Your task to perform on an android device: How do I get to the nearest Target? Image 0: 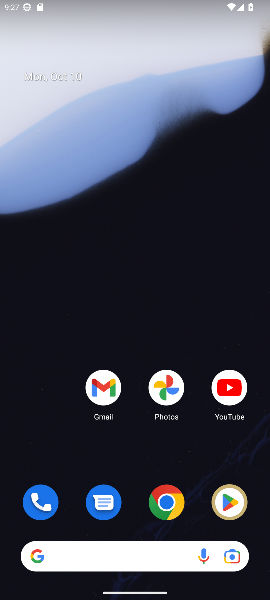
Step 0: click (172, 503)
Your task to perform on an android device: How do I get to the nearest Target? Image 1: 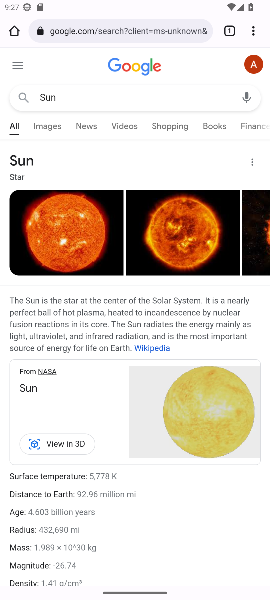
Step 1: click (83, 24)
Your task to perform on an android device: How do I get to the nearest Target? Image 2: 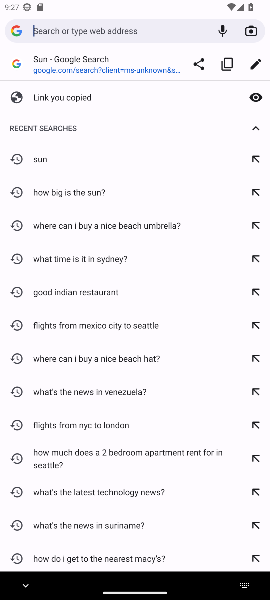
Step 2: type "How do I get to the nearest Target?"
Your task to perform on an android device: How do I get to the nearest Target? Image 3: 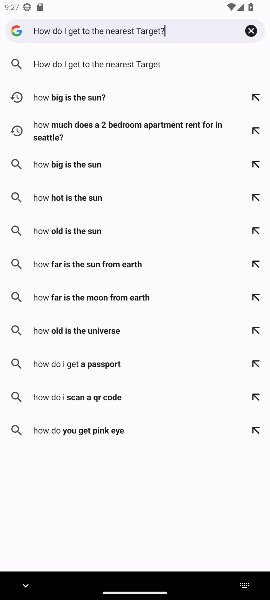
Step 3: type ""
Your task to perform on an android device: How do I get to the nearest Target? Image 4: 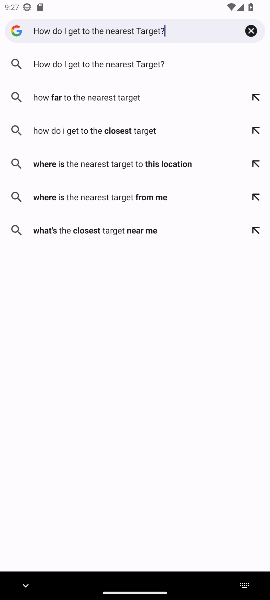
Step 4: click (189, 57)
Your task to perform on an android device: How do I get to the nearest Target? Image 5: 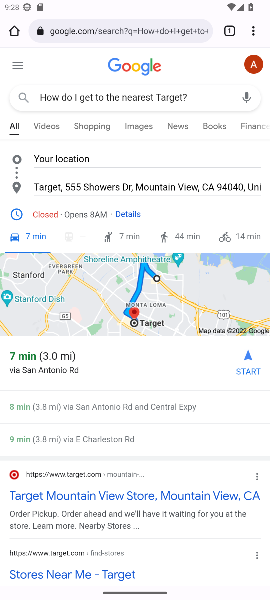
Step 5: drag from (101, 432) to (108, 144)
Your task to perform on an android device: How do I get to the nearest Target? Image 6: 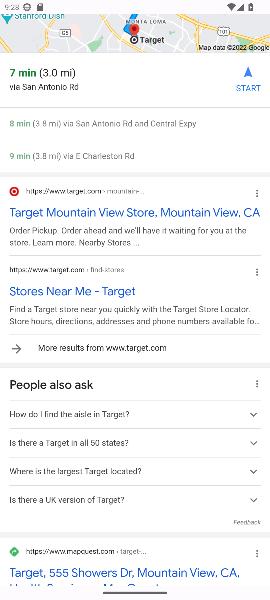
Step 6: click (70, 217)
Your task to perform on an android device: How do I get to the nearest Target? Image 7: 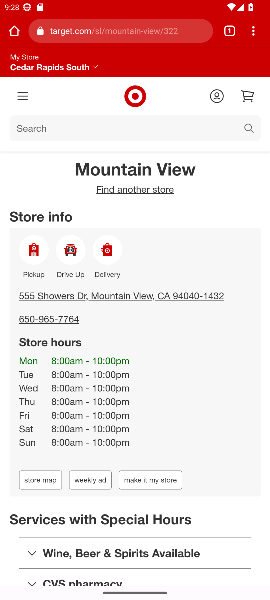
Step 7: drag from (59, 302) to (89, 99)
Your task to perform on an android device: How do I get to the nearest Target? Image 8: 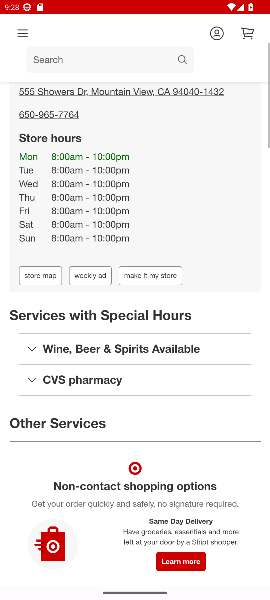
Step 8: drag from (37, 297) to (65, 144)
Your task to perform on an android device: How do I get to the nearest Target? Image 9: 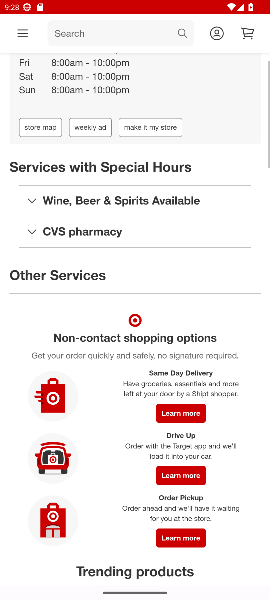
Step 9: drag from (64, 339) to (62, 171)
Your task to perform on an android device: How do I get to the nearest Target? Image 10: 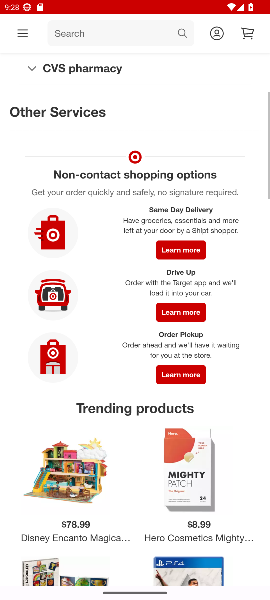
Step 10: drag from (51, 327) to (70, 180)
Your task to perform on an android device: How do I get to the nearest Target? Image 11: 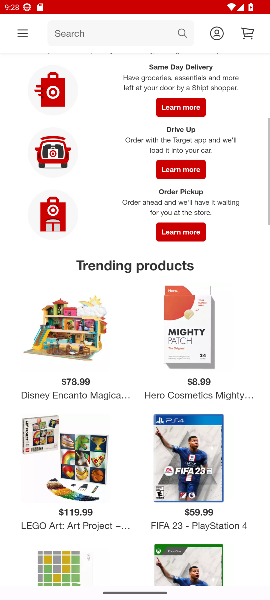
Step 11: drag from (60, 318) to (71, 203)
Your task to perform on an android device: How do I get to the nearest Target? Image 12: 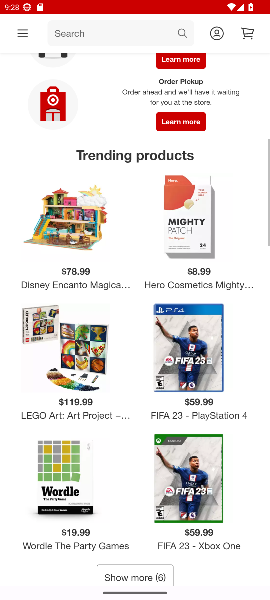
Step 12: drag from (85, 343) to (97, 195)
Your task to perform on an android device: How do I get to the nearest Target? Image 13: 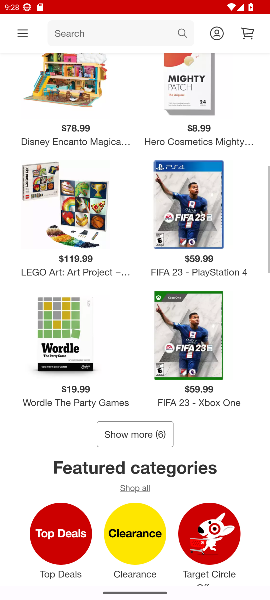
Step 13: drag from (76, 326) to (88, 193)
Your task to perform on an android device: How do I get to the nearest Target? Image 14: 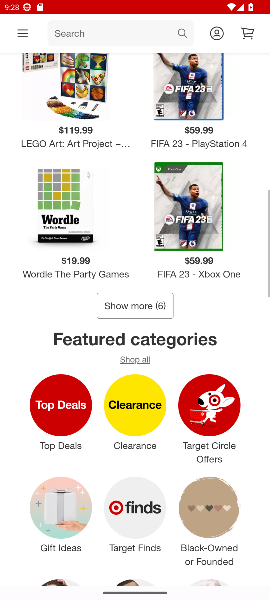
Step 14: drag from (81, 311) to (95, 206)
Your task to perform on an android device: How do I get to the nearest Target? Image 15: 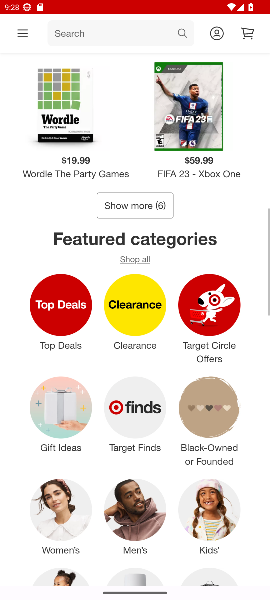
Step 15: drag from (81, 304) to (93, 213)
Your task to perform on an android device: How do I get to the nearest Target? Image 16: 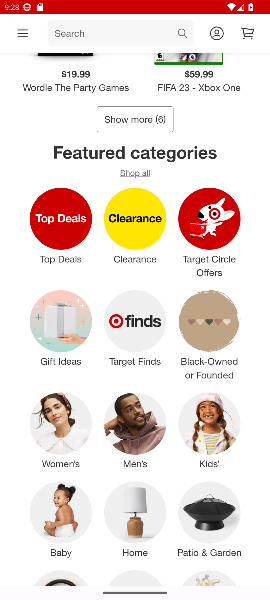
Step 16: drag from (42, 369) to (48, 0)
Your task to perform on an android device: How do I get to the nearest Target? Image 17: 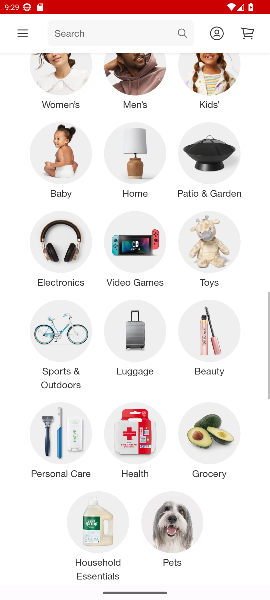
Step 17: drag from (77, 249) to (119, 29)
Your task to perform on an android device: How do I get to the nearest Target? Image 18: 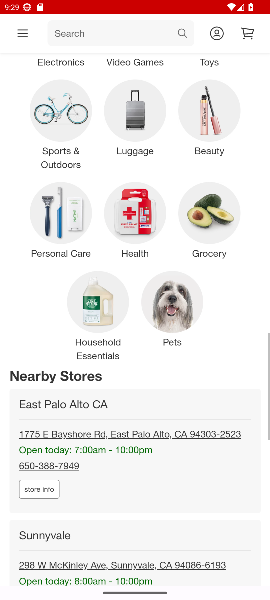
Step 18: drag from (104, 316) to (114, 122)
Your task to perform on an android device: How do I get to the nearest Target? Image 19: 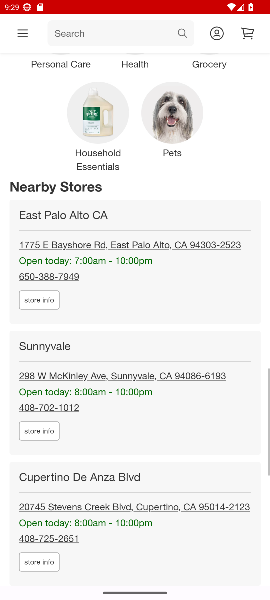
Step 19: drag from (106, 340) to (118, 128)
Your task to perform on an android device: How do I get to the nearest Target? Image 20: 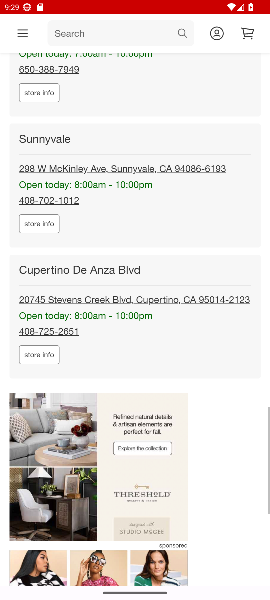
Step 20: drag from (120, 387) to (123, 188)
Your task to perform on an android device: How do I get to the nearest Target? Image 21: 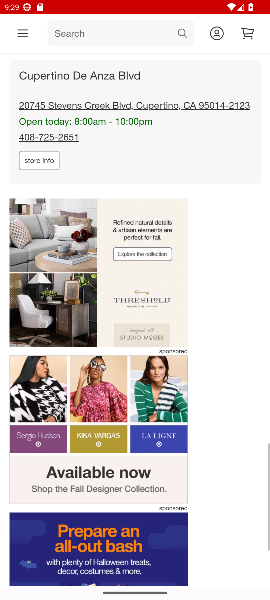
Step 21: drag from (158, 389) to (170, 150)
Your task to perform on an android device: How do I get to the nearest Target? Image 22: 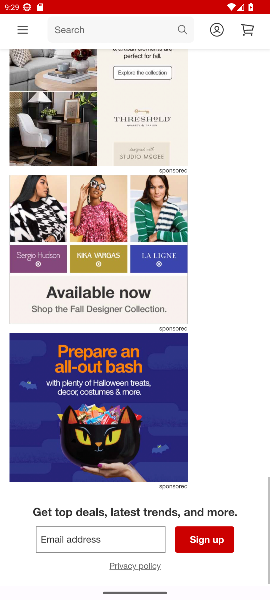
Step 22: drag from (190, 366) to (192, 148)
Your task to perform on an android device: How do I get to the nearest Target? Image 23: 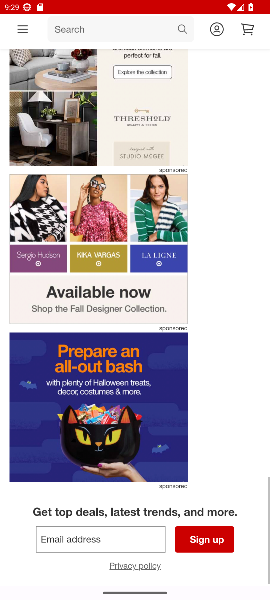
Step 23: drag from (211, 375) to (227, 196)
Your task to perform on an android device: How do I get to the nearest Target? Image 24: 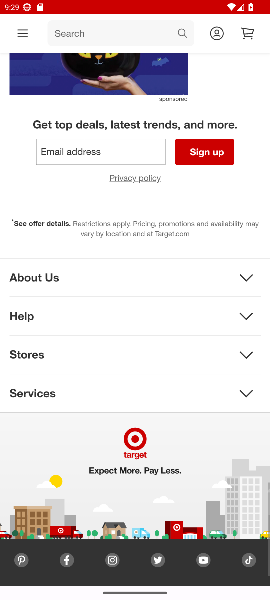
Step 24: drag from (247, 429) to (237, 244)
Your task to perform on an android device: How do I get to the nearest Target? Image 25: 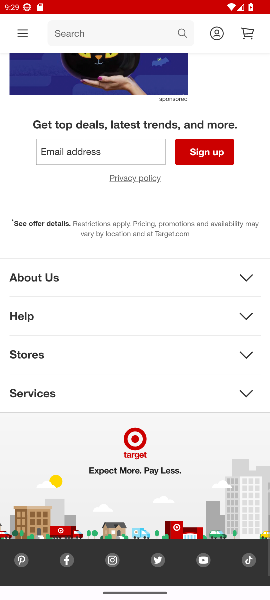
Step 25: drag from (239, 511) to (243, 335)
Your task to perform on an android device: How do I get to the nearest Target? Image 26: 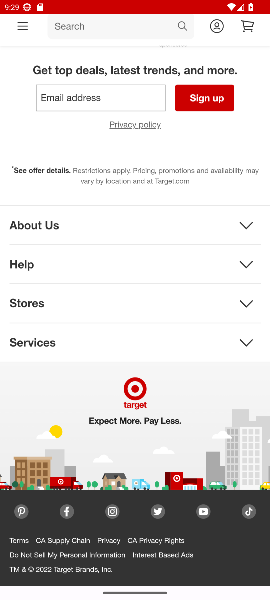
Step 26: press back button
Your task to perform on an android device: How do I get to the nearest Target? Image 27: 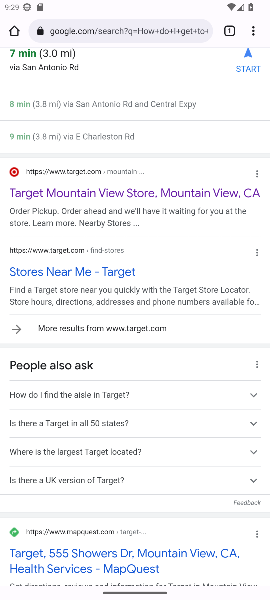
Step 27: drag from (136, 521) to (128, 589)
Your task to perform on an android device: How do I get to the nearest Target? Image 28: 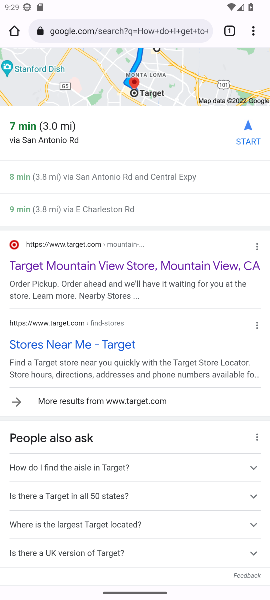
Step 28: drag from (137, 129) to (143, 462)
Your task to perform on an android device: How do I get to the nearest Target? Image 29: 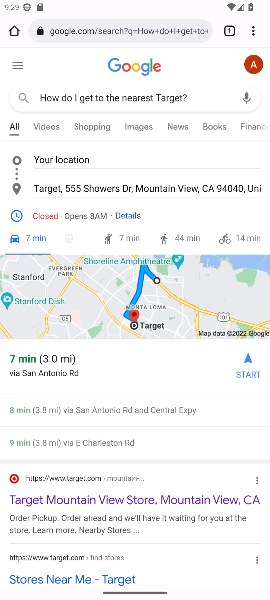
Step 29: click (90, 261)
Your task to perform on an android device: How do I get to the nearest Target? Image 30: 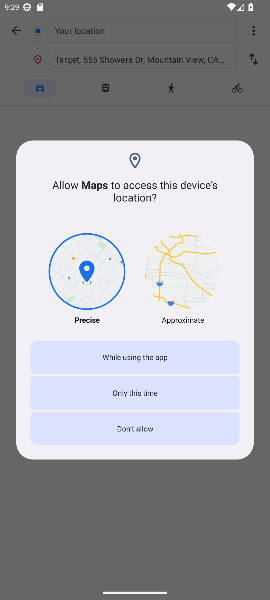
Step 30: click (152, 425)
Your task to perform on an android device: How do I get to the nearest Target? Image 31: 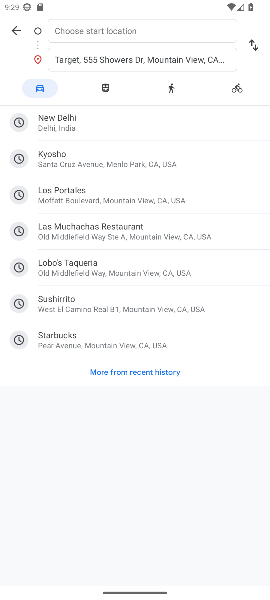
Step 31: press back button
Your task to perform on an android device: How do I get to the nearest Target? Image 32: 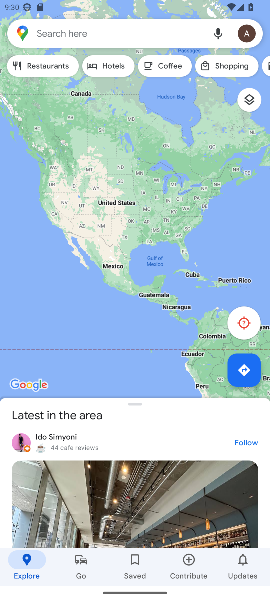
Step 32: press back button
Your task to perform on an android device: How do I get to the nearest Target? Image 33: 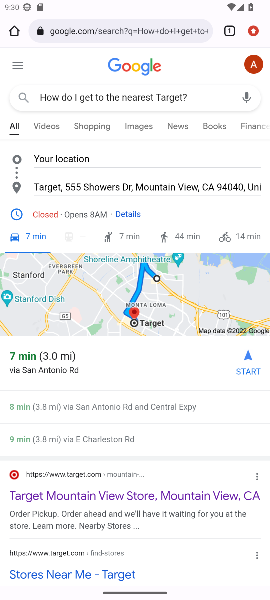
Step 33: drag from (157, 508) to (152, 122)
Your task to perform on an android device: How do I get to the nearest Target? Image 34: 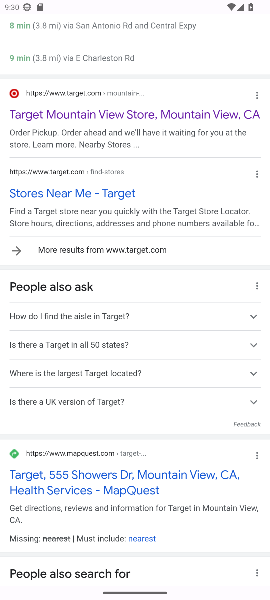
Step 34: click (66, 201)
Your task to perform on an android device: How do I get to the nearest Target? Image 35: 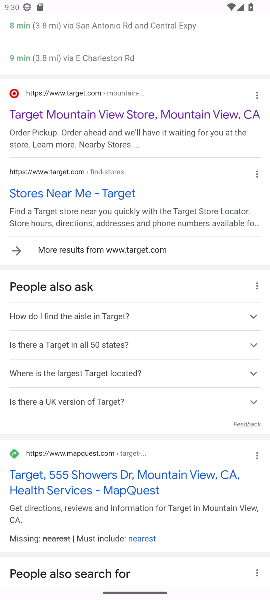
Step 35: click (67, 194)
Your task to perform on an android device: How do I get to the nearest Target? Image 36: 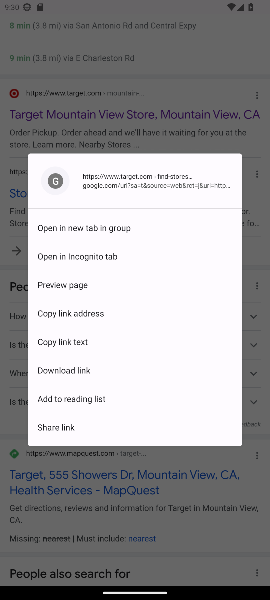
Step 36: click (157, 489)
Your task to perform on an android device: How do I get to the nearest Target? Image 37: 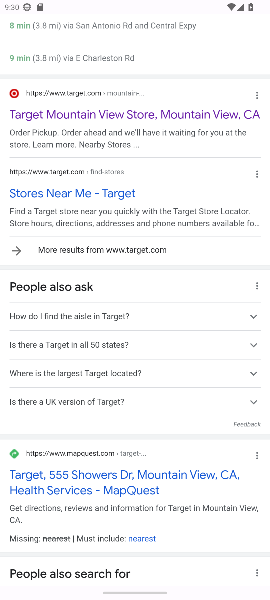
Step 37: press back button
Your task to perform on an android device: How do I get to the nearest Target? Image 38: 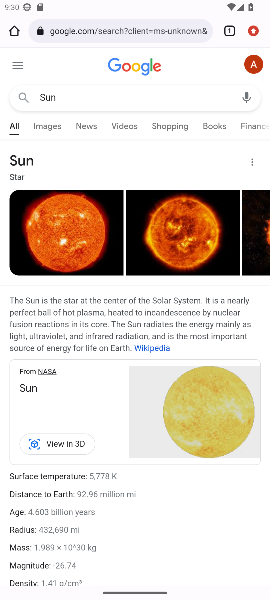
Step 38: drag from (185, 444) to (163, 121)
Your task to perform on an android device: How do I get to the nearest Target? Image 39: 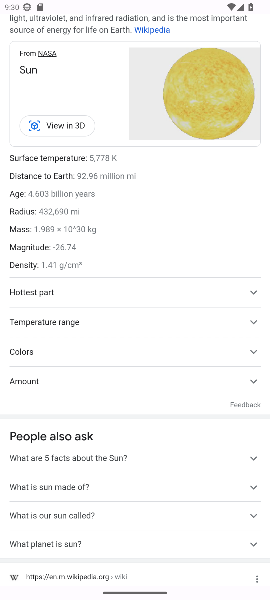
Step 39: drag from (139, 327) to (128, 39)
Your task to perform on an android device: How do I get to the nearest Target? Image 40: 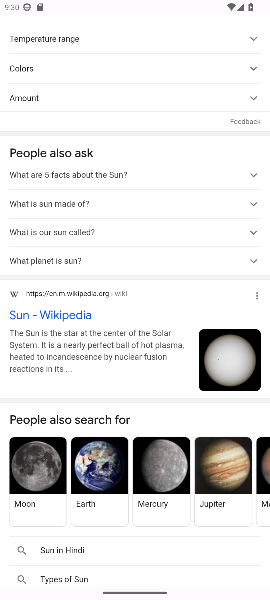
Step 40: drag from (167, 93) to (141, 369)
Your task to perform on an android device: How do I get to the nearest Target? Image 41: 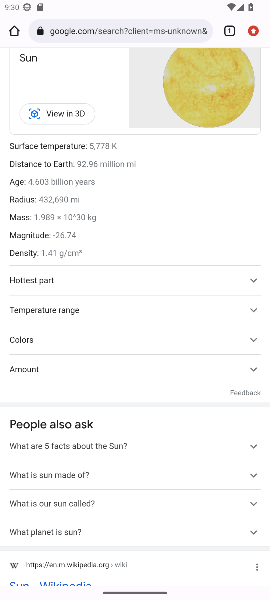
Step 41: type "How do I get to the nearest Target?"
Your task to perform on an android device: How do I get to the nearest Target? Image 42: 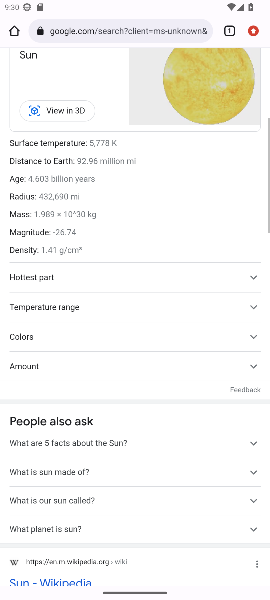
Step 42: press enter
Your task to perform on an android device: How do I get to the nearest Target? Image 43: 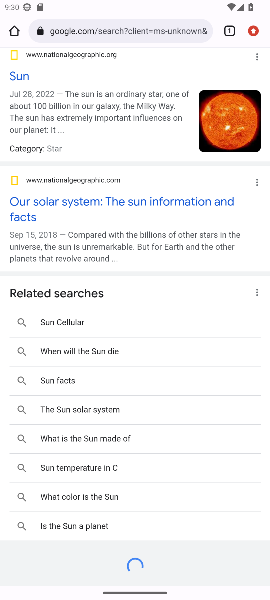
Step 43: click (181, 37)
Your task to perform on an android device: How do I get to the nearest Target? Image 44: 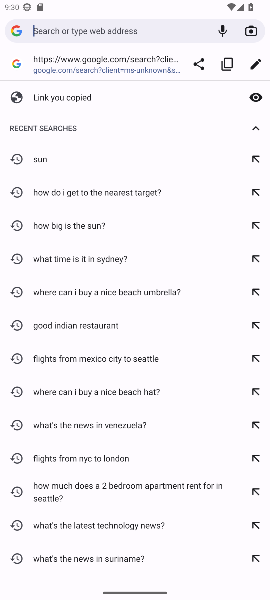
Step 44: click (177, 32)
Your task to perform on an android device: How do I get to the nearest Target? Image 45: 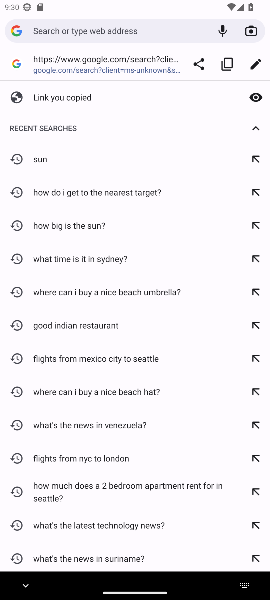
Step 45: type "How do I get to the nearest Target?"
Your task to perform on an android device: How do I get to the nearest Target? Image 46: 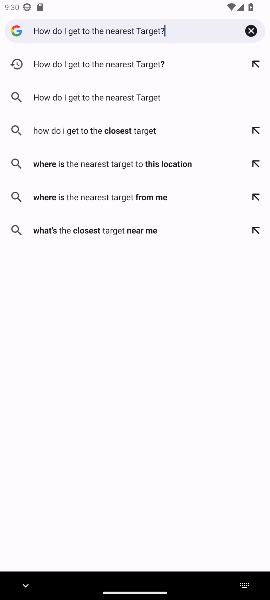
Step 46: press enter
Your task to perform on an android device: How do I get to the nearest Target? Image 47: 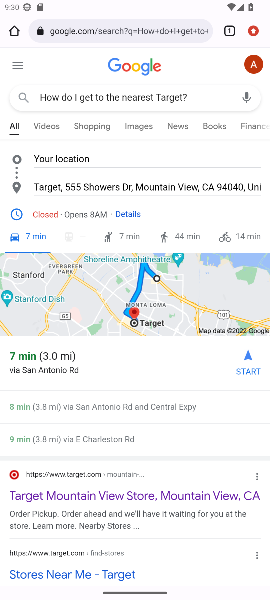
Step 47: task complete